Your task to perform on an android device: turn off improve location accuracy Image 0: 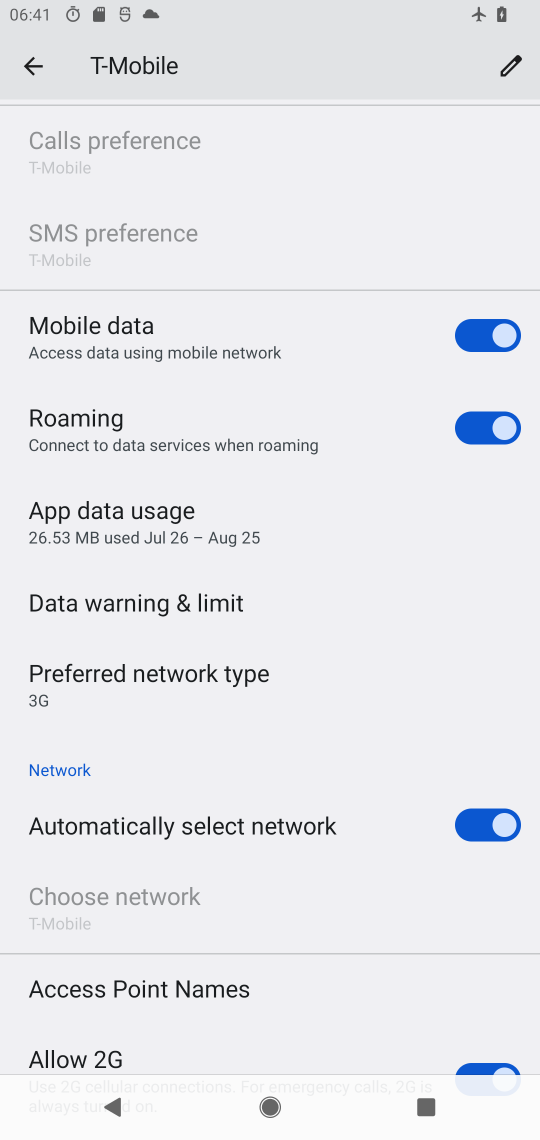
Step 0: press home button
Your task to perform on an android device: turn off improve location accuracy Image 1: 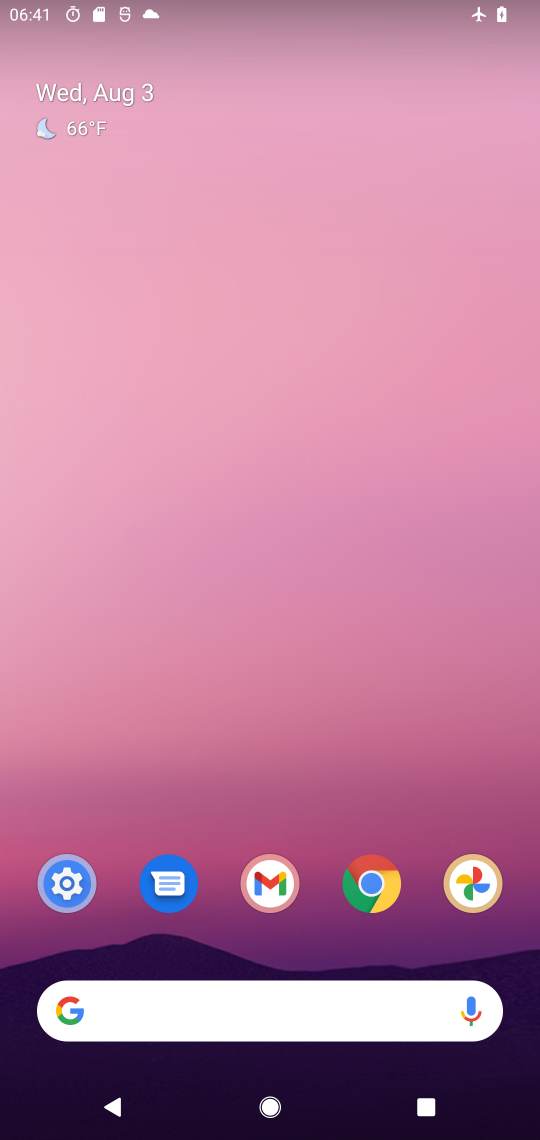
Step 1: drag from (252, 898) to (351, 146)
Your task to perform on an android device: turn off improve location accuracy Image 2: 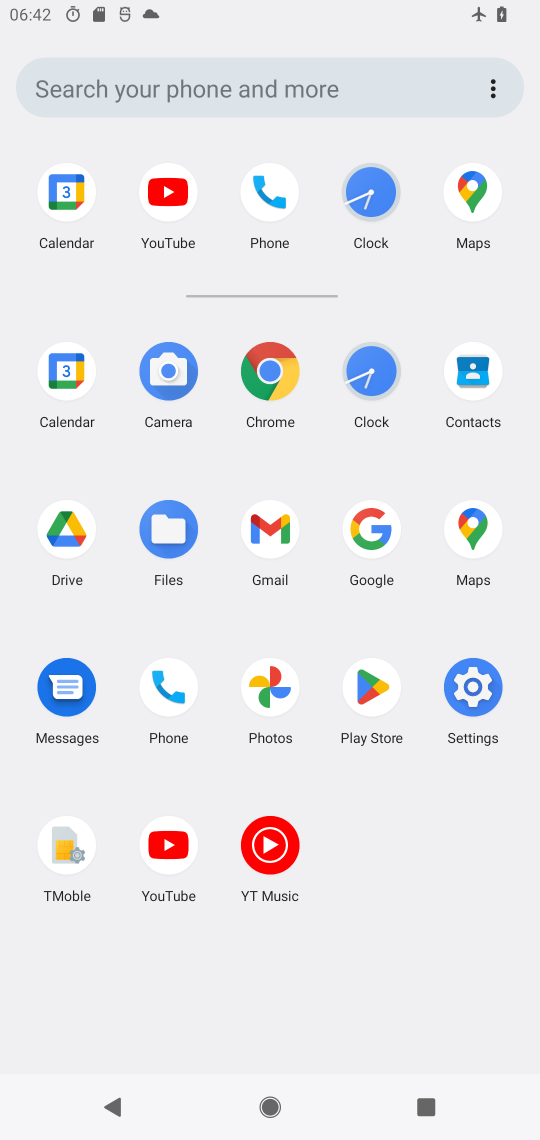
Step 2: click (465, 669)
Your task to perform on an android device: turn off improve location accuracy Image 3: 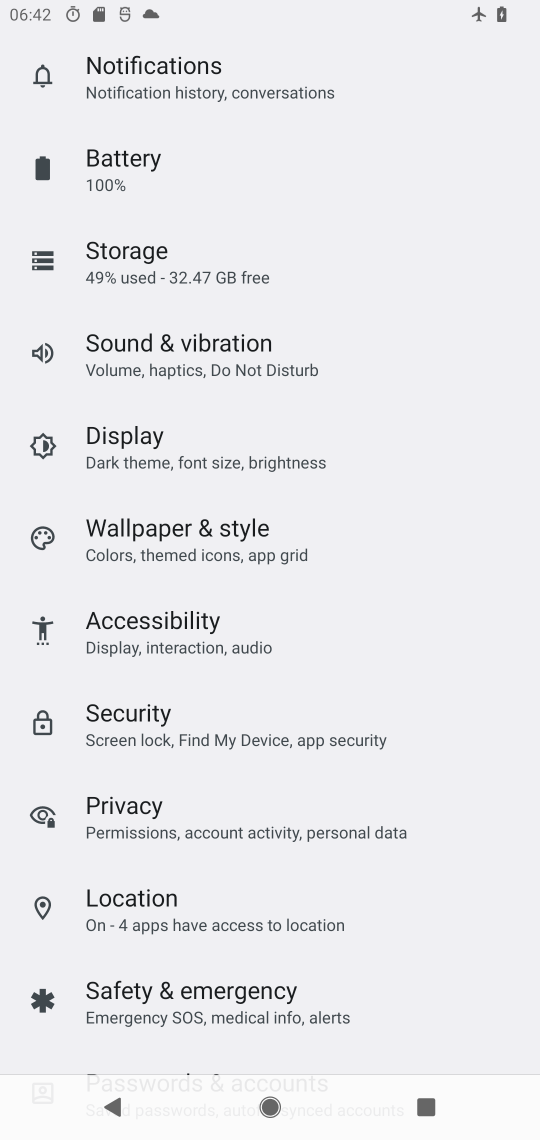
Step 3: click (176, 914)
Your task to perform on an android device: turn off improve location accuracy Image 4: 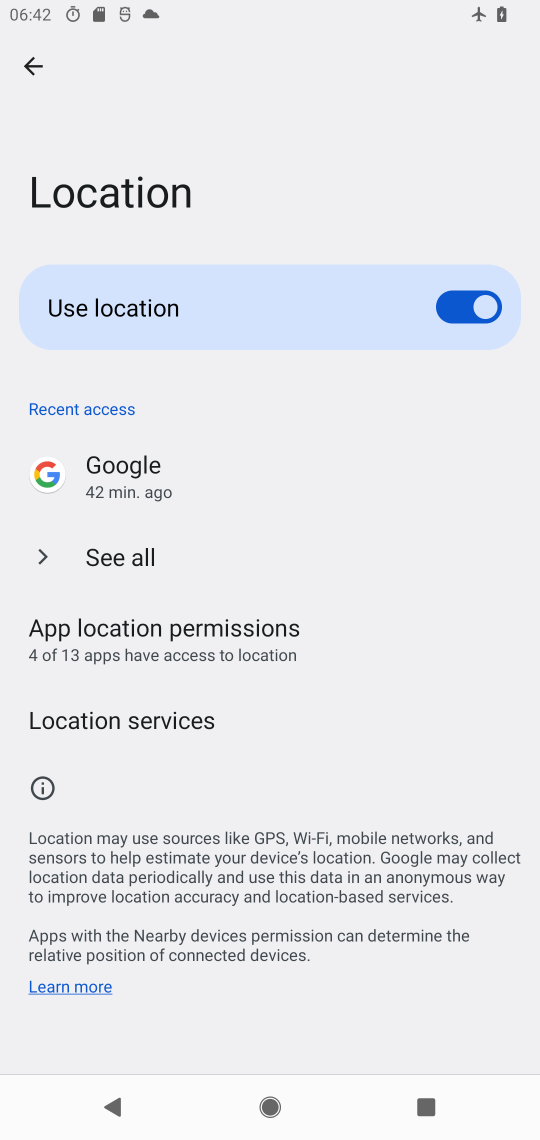
Step 4: drag from (157, 873) to (166, 289)
Your task to perform on an android device: turn off improve location accuracy Image 5: 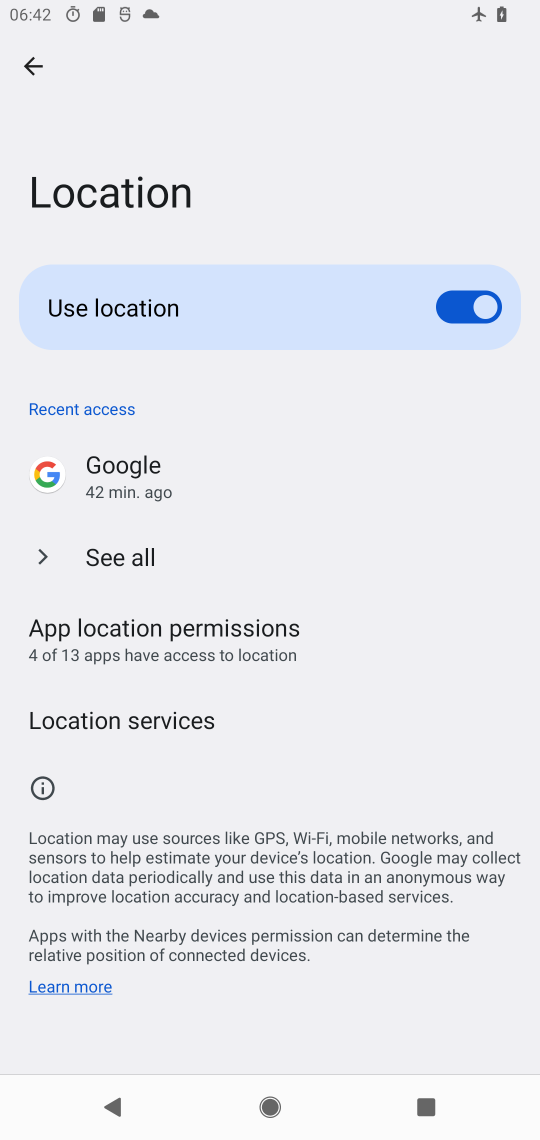
Step 5: click (118, 719)
Your task to perform on an android device: turn off improve location accuracy Image 6: 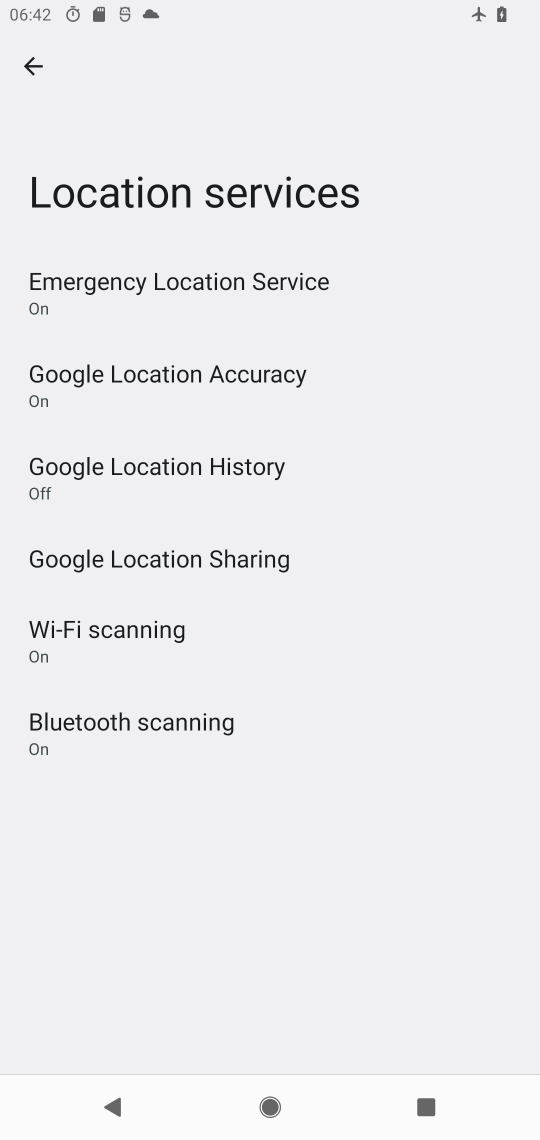
Step 6: click (160, 395)
Your task to perform on an android device: turn off improve location accuracy Image 7: 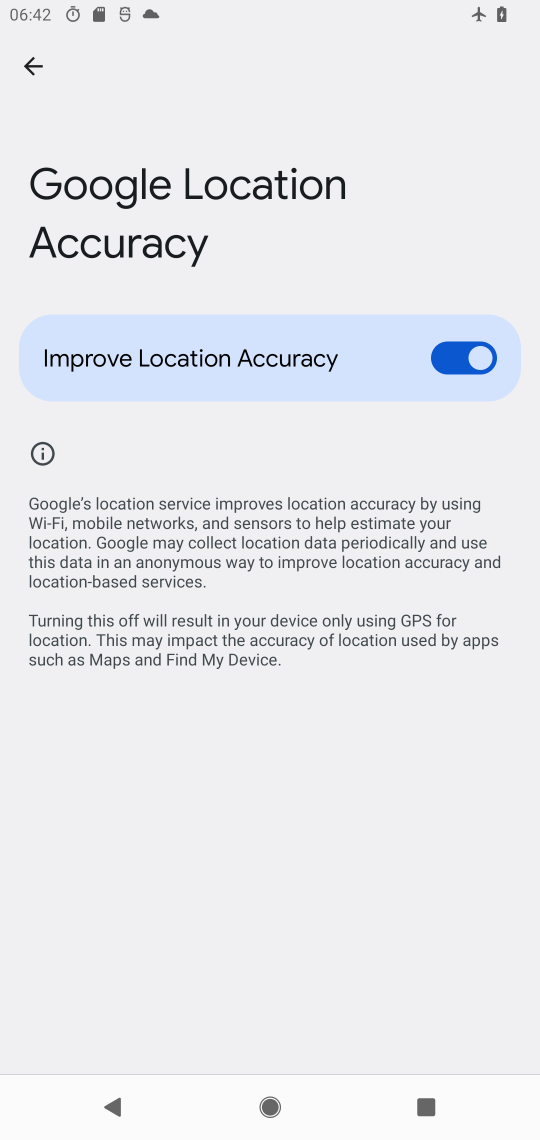
Step 7: click (463, 358)
Your task to perform on an android device: turn off improve location accuracy Image 8: 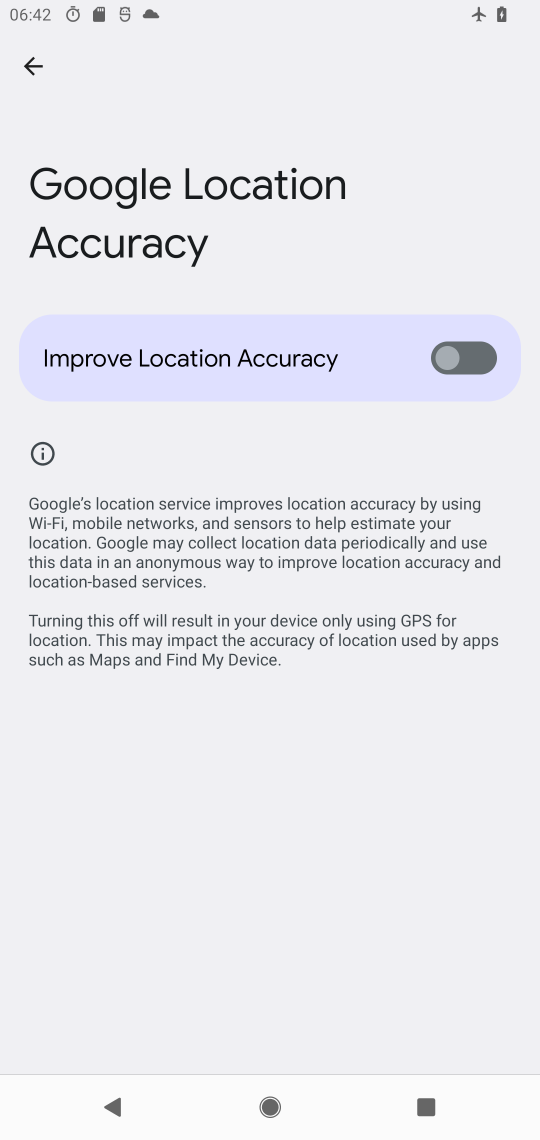
Step 8: task complete